Your task to perform on an android device: Open Google Maps and go to "Timeline" Image 0: 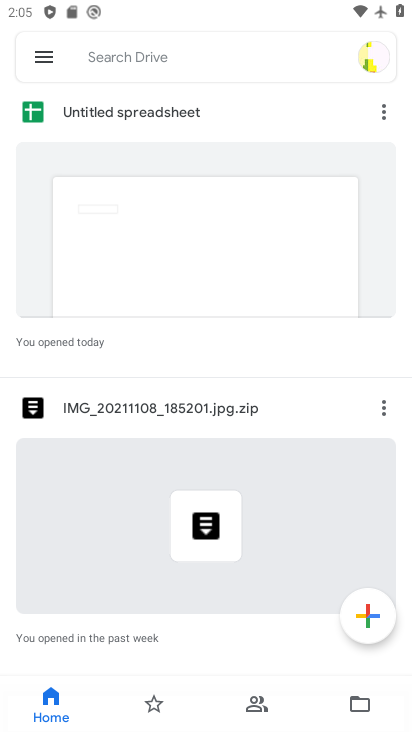
Step 0: press back button
Your task to perform on an android device: Open Google Maps and go to "Timeline" Image 1: 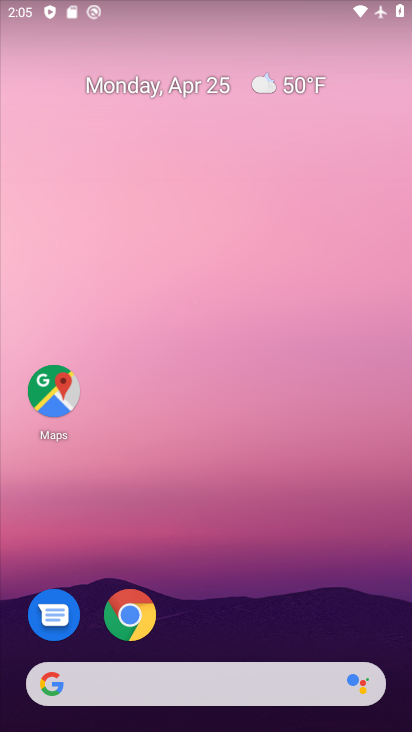
Step 1: click (58, 393)
Your task to perform on an android device: Open Google Maps and go to "Timeline" Image 2: 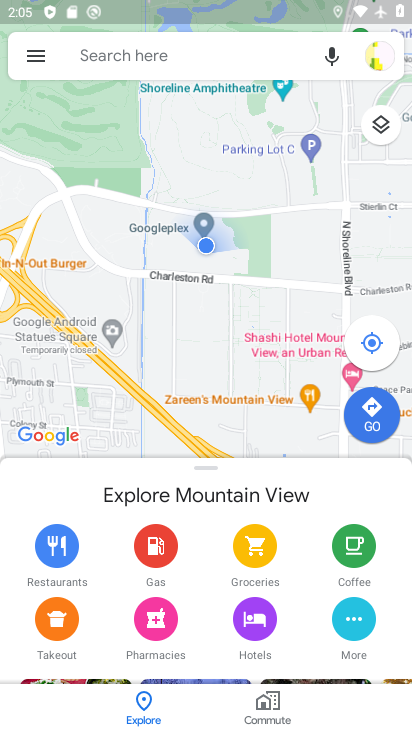
Step 2: click (36, 52)
Your task to perform on an android device: Open Google Maps and go to "Timeline" Image 3: 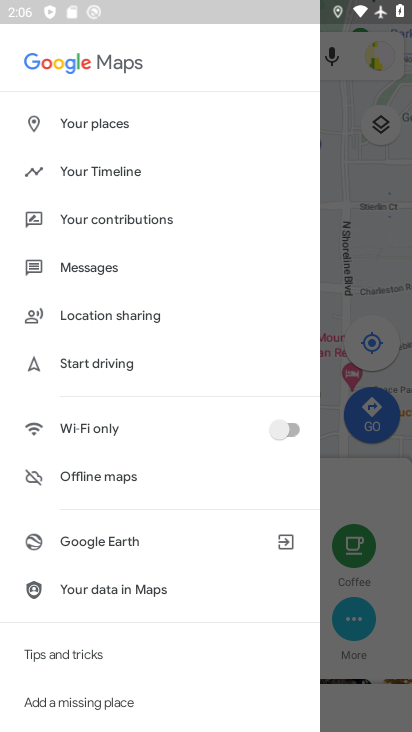
Step 3: click (105, 172)
Your task to perform on an android device: Open Google Maps and go to "Timeline" Image 4: 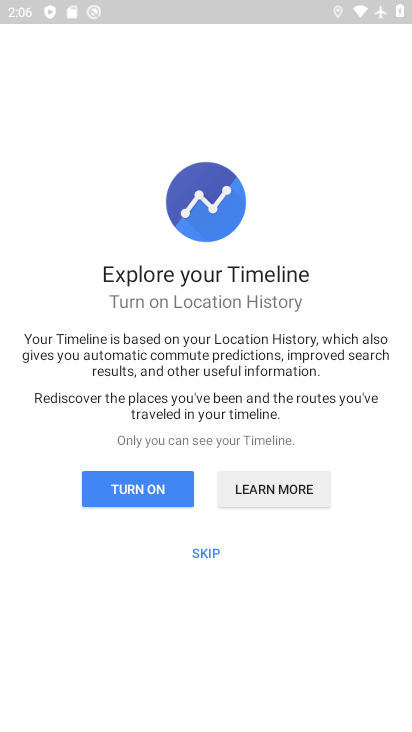
Step 4: click (203, 556)
Your task to perform on an android device: Open Google Maps and go to "Timeline" Image 5: 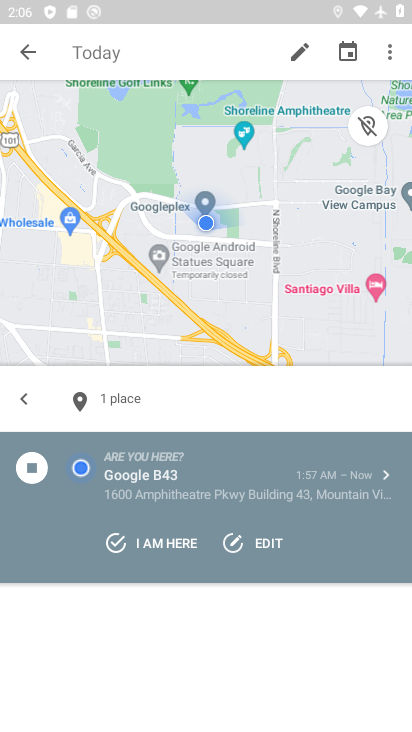
Step 5: task complete